Your task to perform on an android device: Check the news Image 0: 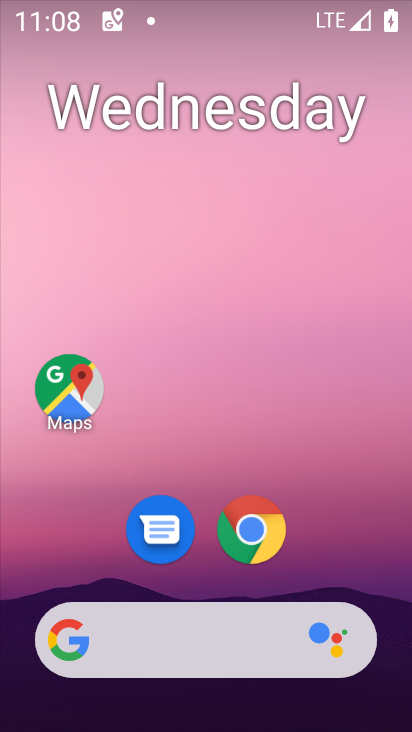
Step 0: drag from (14, 274) to (377, 307)
Your task to perform on an android device: Check the news Image 1: 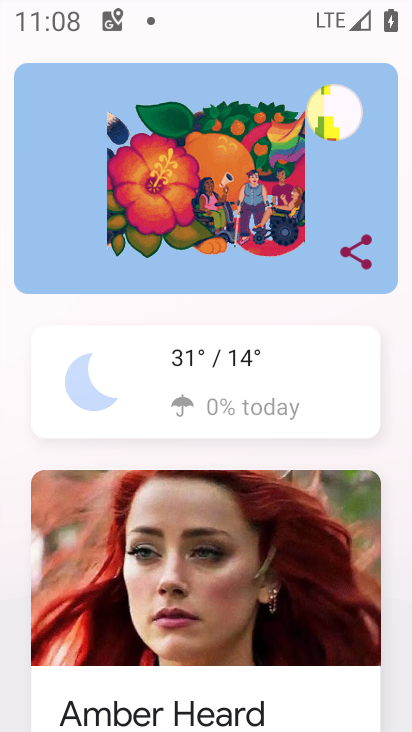
Step 1: task complete